Your task to perform on an android device: open sync settings in chrome Image 0: 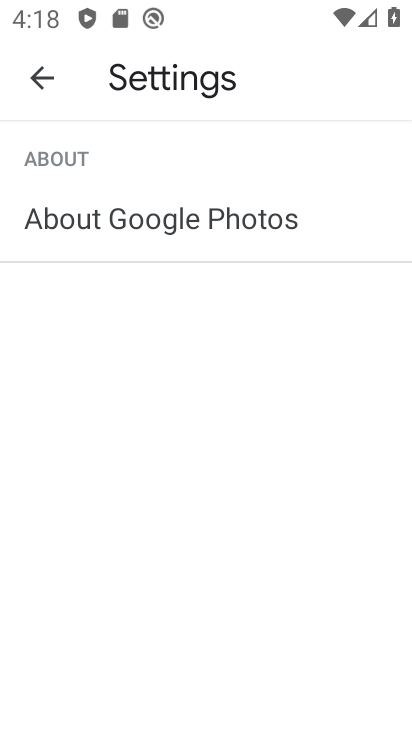
Step 0: press home button
Your task to perform on an android device: open sync settings in chrome Image 1: 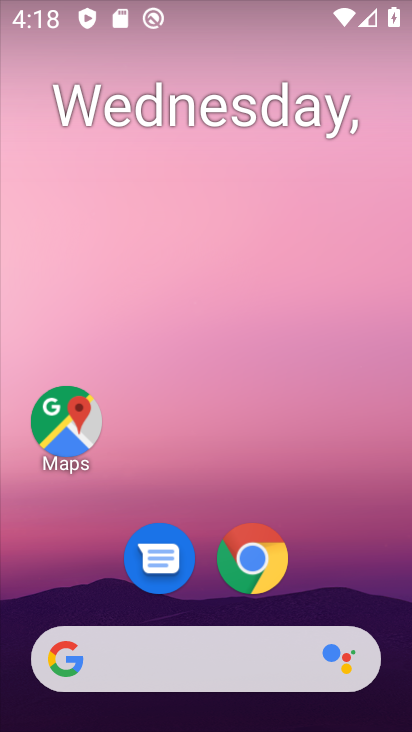
Step 1: drag from (345, 544) to (336, 177)
Your task to perform on an android device: open sync settings in chrome Image 2: 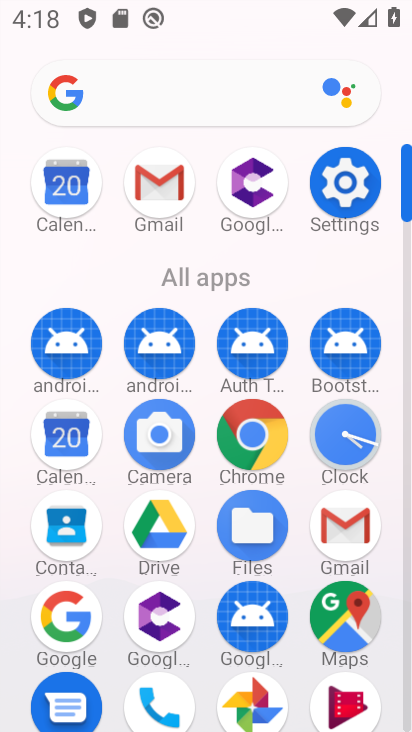
Step 2: click (252, 437)
Your task to perform on an android device: open sync settings in chrome Image 3: 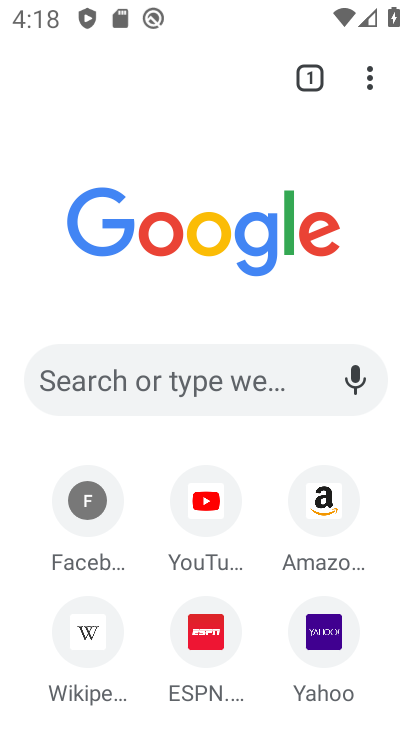
Step 3: click (370, 78)
Your task to perform on an android device: open sync settings in chrome Image 4: 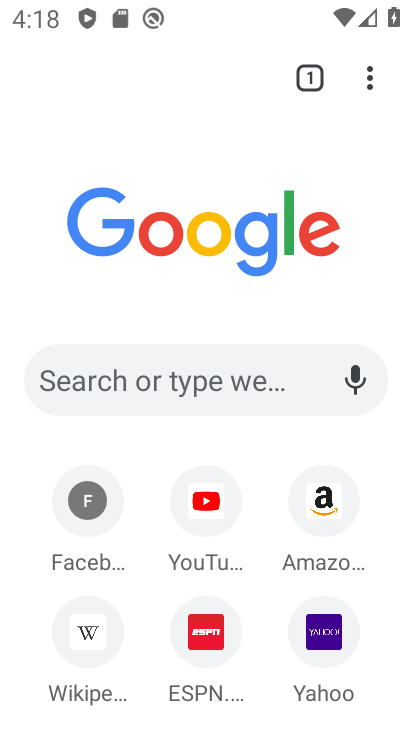
Step 4: click (372, 74)
Your task to perform on an android device: open sync settings in chrome Image 5: 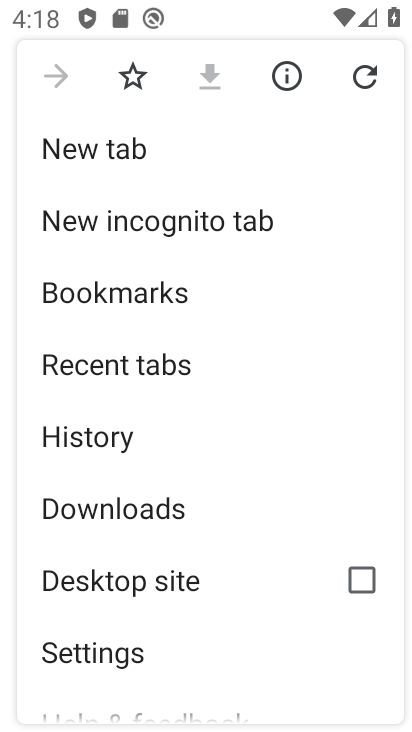
Step 5: drag from (305, 408) to (328, 297)
Your task to perform on an android device: open sync settings in chrome Image 6: 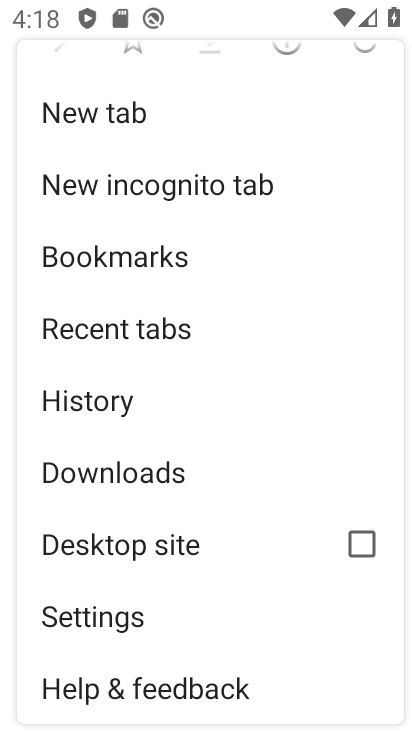
Step 6: click (133, 627)
Your task to perform on an android device: open sync settings in chrome Image 7: 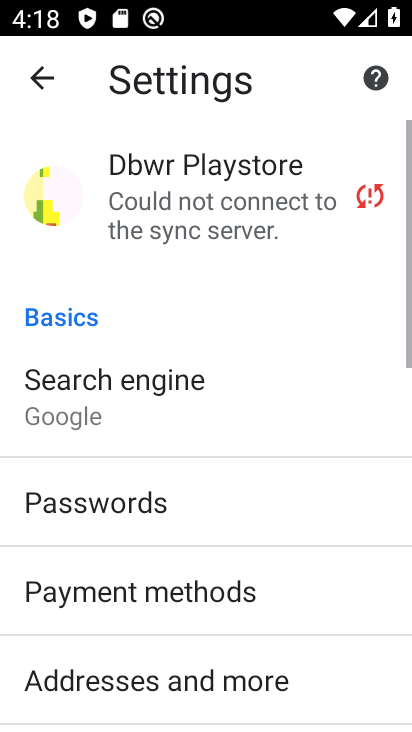
Step 7: drag from (292, 609) to (308, 454)
Your task to perform on an android device: open sync settings in chrome Image 8: 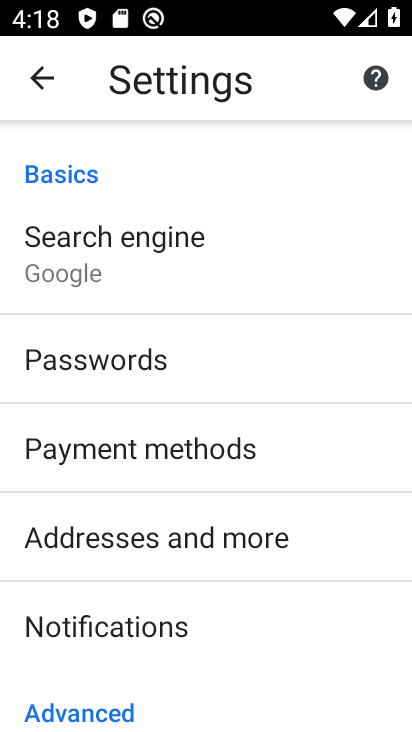
Step 8: drag from (353, 627) to (345, 476)
Your task to perform on an android device: open sync settings in chrome Image 9: 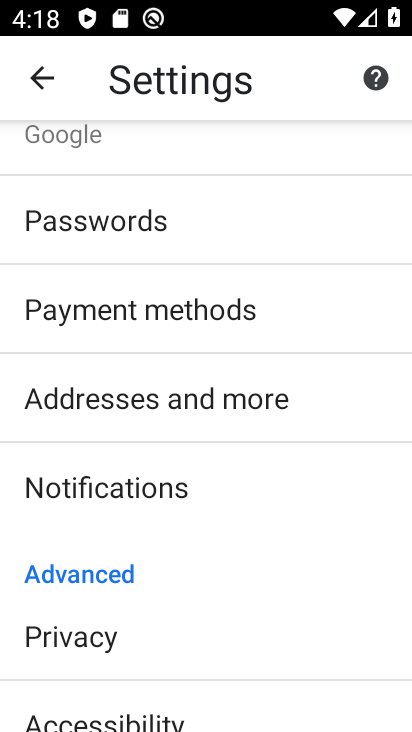
Step 9: drag from (297, 606) to (286, 464)
Your task to perform on an android device: open sync settings in chrome Image 10: 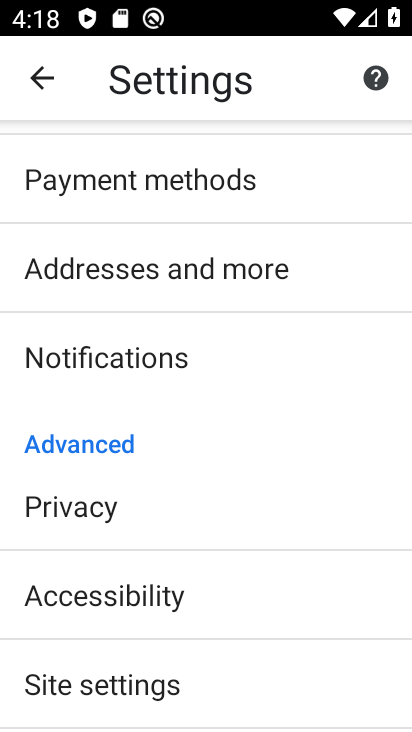
Step 10: drag from (272, 627) to (274, 485)
Your task to perform on an android device: open sync settings in chrome Image 11: 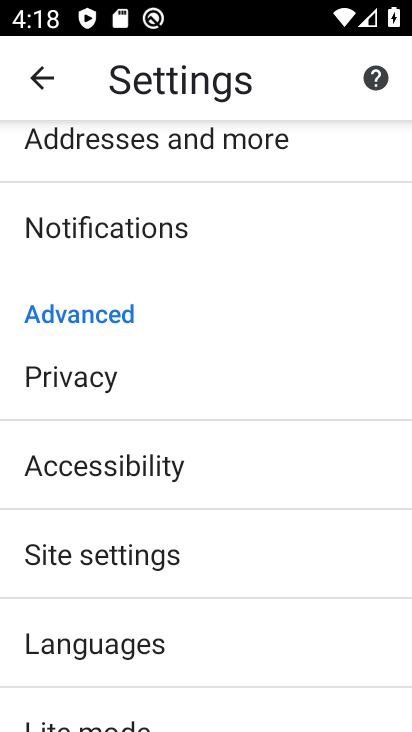
Step 11: drag from (293, 624) to (296, 469)
Your task to perform on an android device: open sync settings in chrome Image 12: 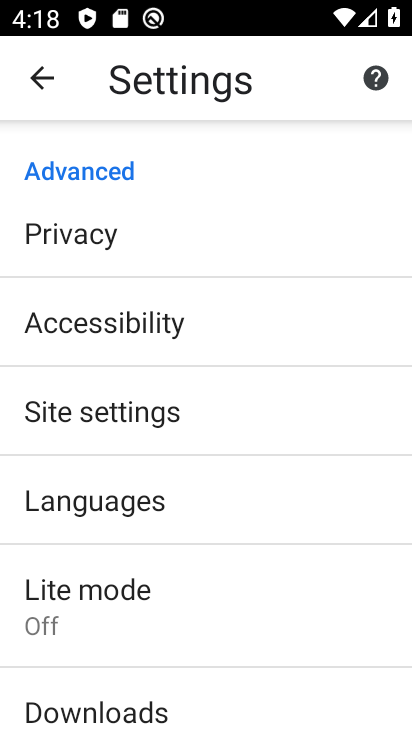
Step 12: drag from (304, 612) to (341, 473)
Your task to perform on an android device: open sync settings in chrome Image 13: 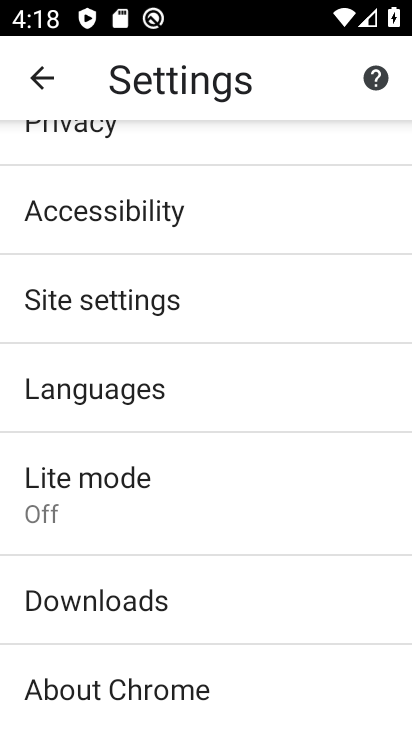
Step 13: click (203, 313)
Your task to perform on an android device: open sync settings in chrome Image 14: 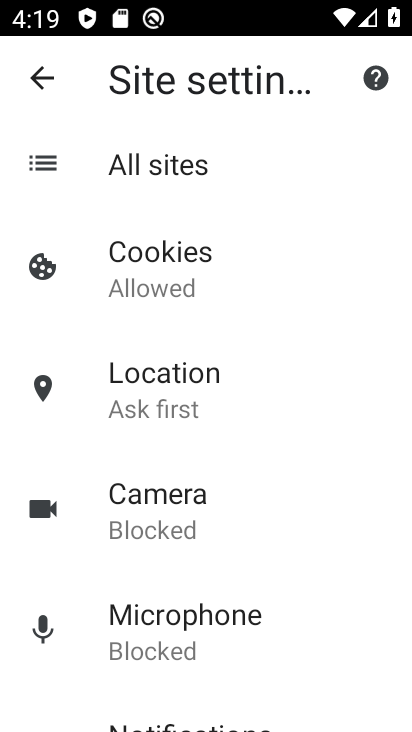
Step 14: drag from (321, 598) to (338, 489)
Your task to perform on an android device: open sync settings in chrome Image 15: 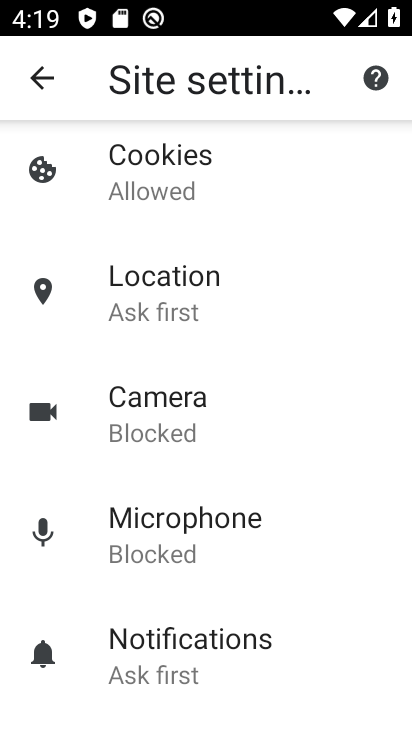
Step 15: drag from (384, 608) to (360, 467)
Your task to perform on an android device: open sync settings in chrome Image 16: 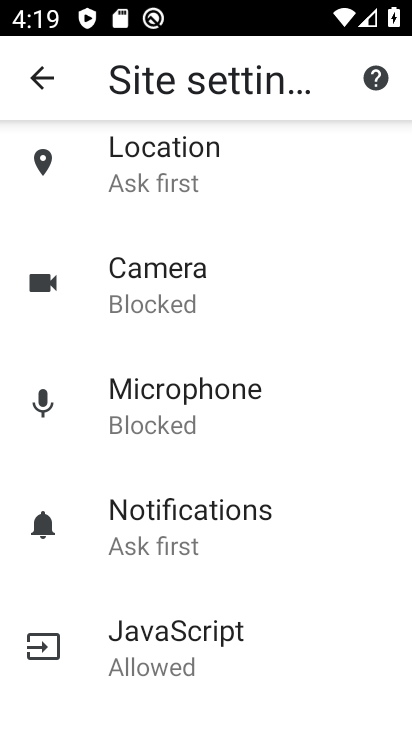
Step 16: drag from (327, 617) to (339, 468)
Your task to perform on an android device: open sync settings in chrome Image 17: 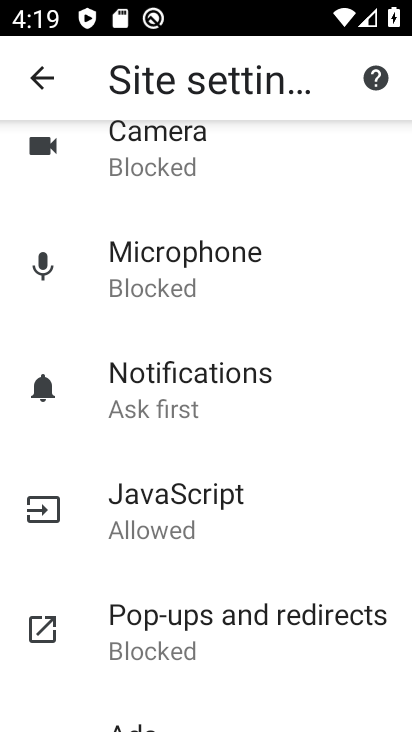
Step 17: drag from (287, 639) to (321, 498)
Your task to perform on an android device: open sync settings in chrome Image 18: 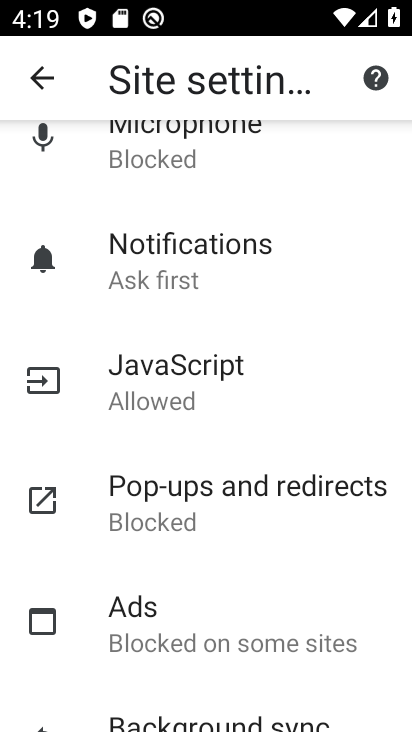
Step 18: drag from (258, 675) to (259, 516)
Your task to perform on an android device: open sync settings in chrome Image 19: 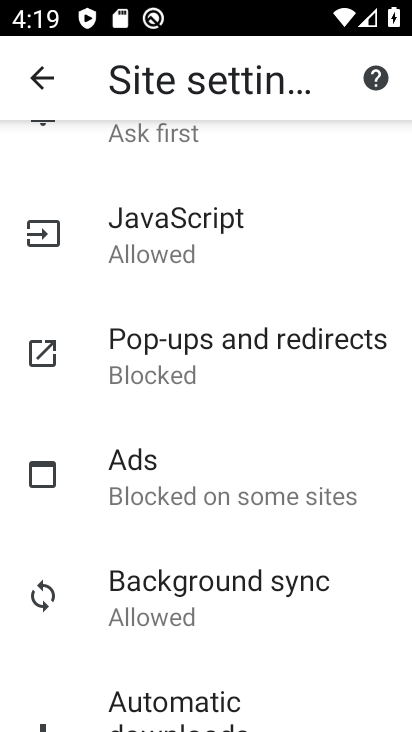
Step 19: click (224, 594)
Your task to perform on an android device: open sync settings in chrome Image 20: 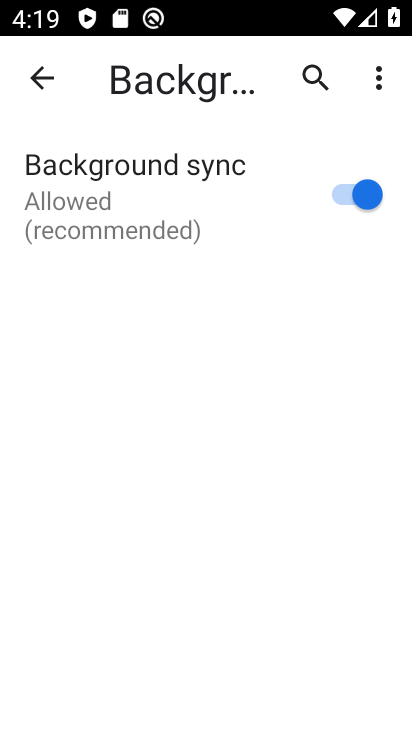
Step 20: task complete